Your task to perform on an android device: Show me popular games on the Play Store Image 0: 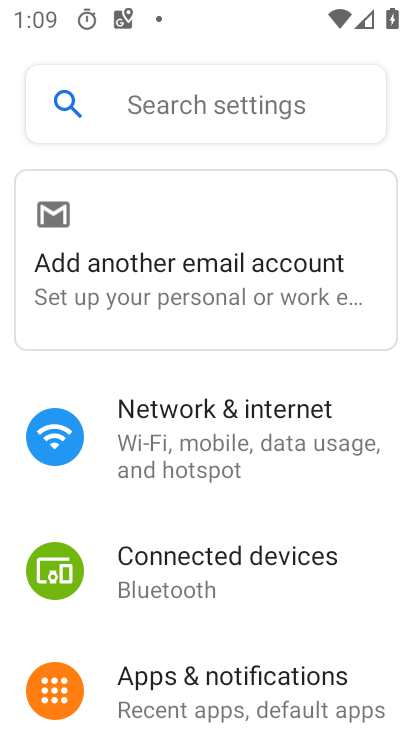
Step 0: press home button
Your task to perform on an android device: Show me popular games on the Play Store Image 1: 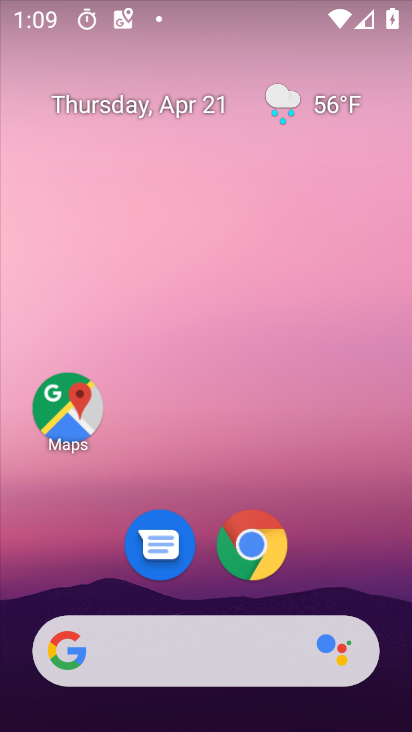
Step 1: drag from (222, 644) to (363, 68)
Your task to perform on an android device: Show me popular games on the Play Store Image 2: 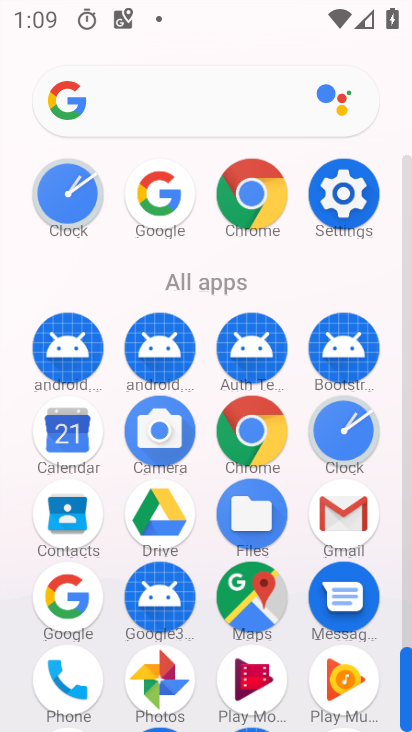
Step 2: drag from (205, 589) to (318, 279)
Your task to perform on an android device: Show me popular games on the Play Store Image 3: 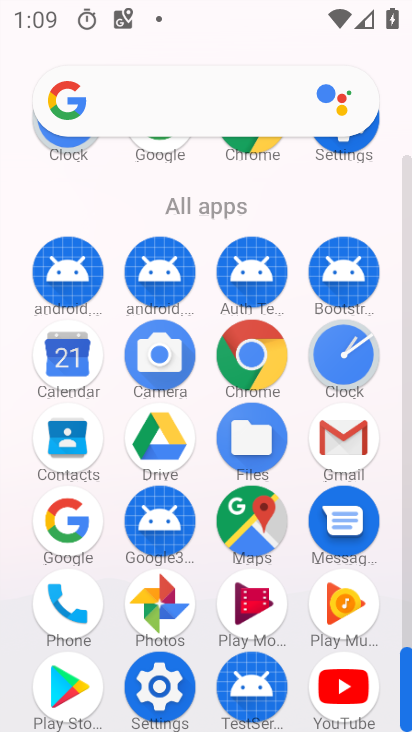
Step 3: click (78, 694)
Your task to perform on an android device: Show me popular games on the Play Store Image 4: 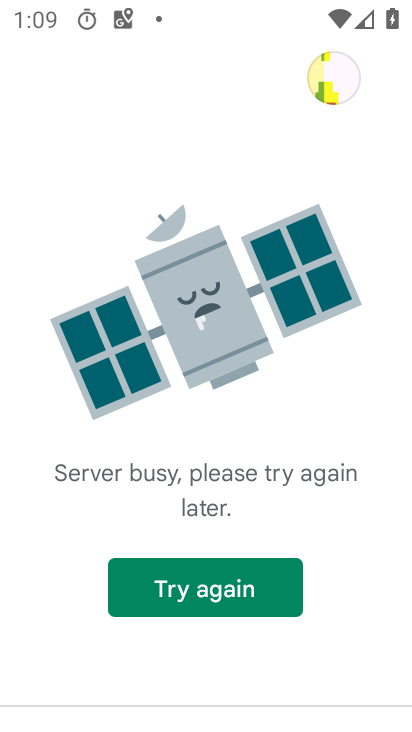
Step 4: click (173, 592)
Your task to perform on an android device: Show me popular games on the Play Store Image 5: 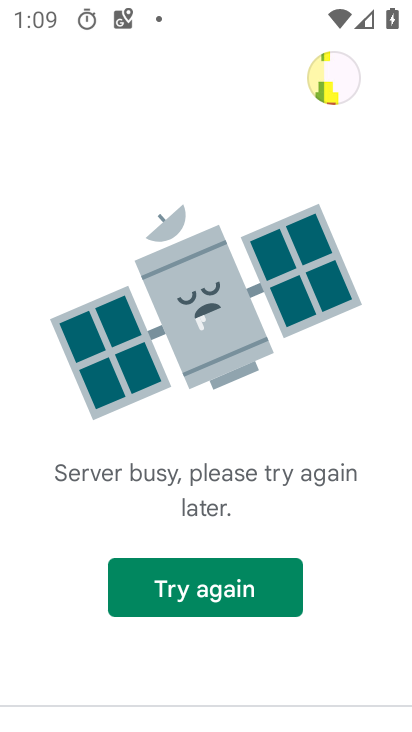
Step 5: task complete